Your task to perform on an android device: Open the web browser Image 0: 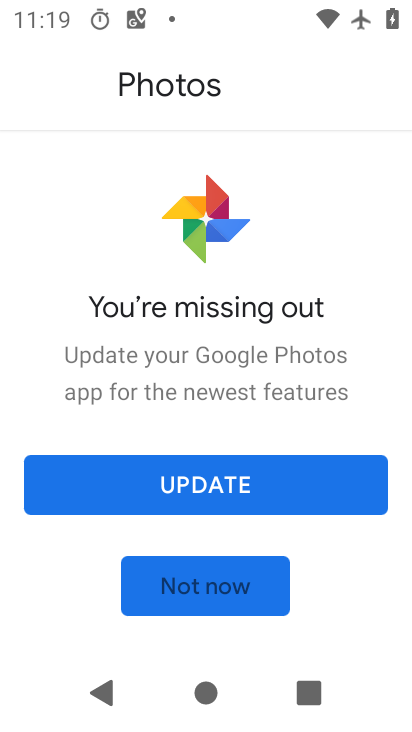
Step 0: press home button
Your task to perform on an android device: Open the web browser Image 1: 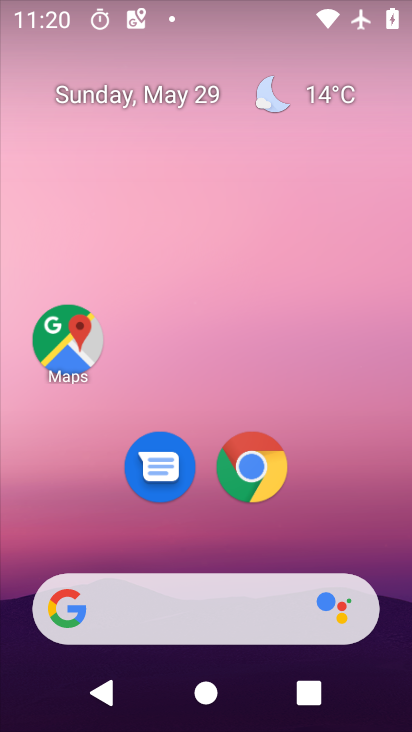
Step 1: click (242, 487)
Your task to perform on an android device: Open the web browser Image 2: 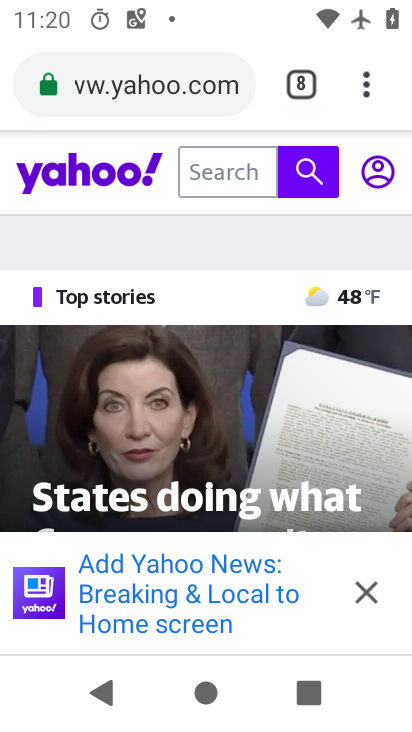
Step 2: task complete